Your task to perform on an android device: add a label to a message in the gmail app Image 0: 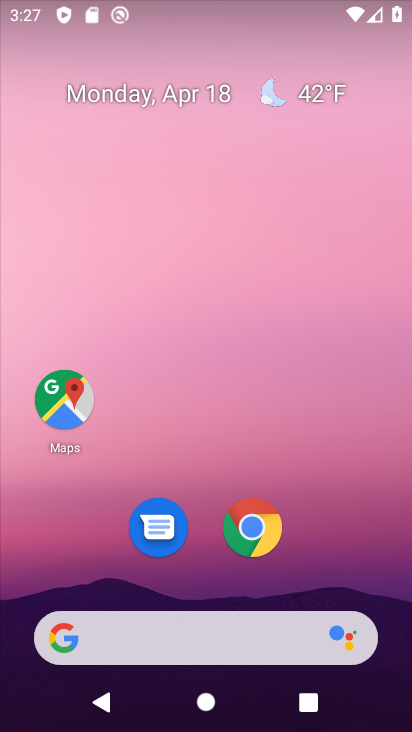
Step 0: drag from (389, 626) to (347, 93)
Your task to perform on an android device: add a label to a message in the gmail app Image 1: 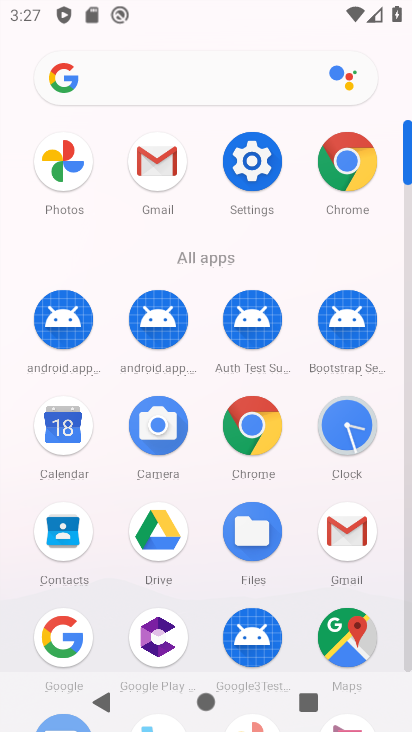
Step 1: click (406, 652)
Your task to perform on an android device: add a label to a message in the gmail app Image 2: 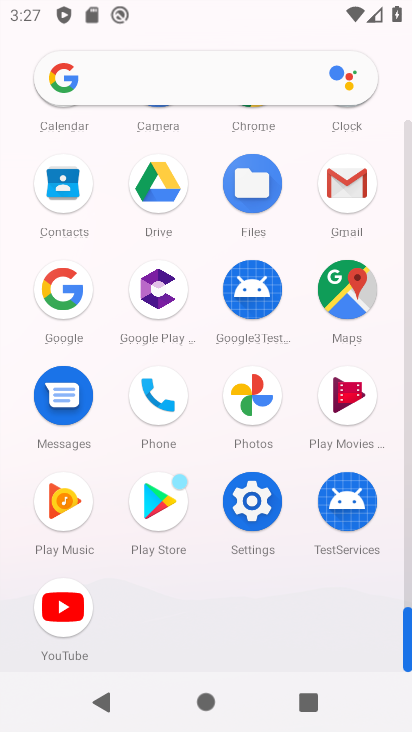
Step 2: click (346, 182)
Your task to perform on an android device: add a label to a message in the gmail app Image 3: 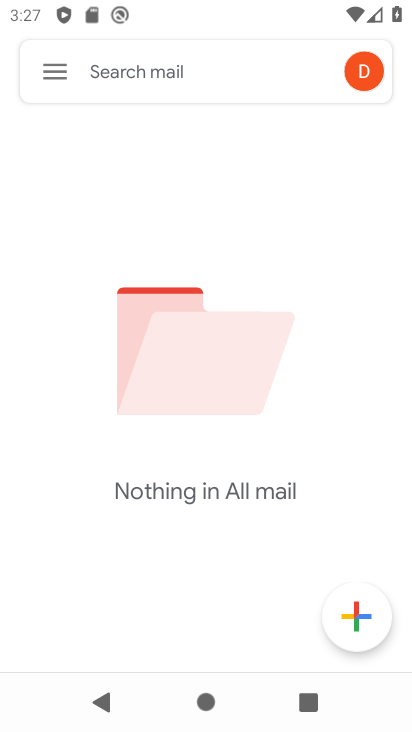
Step 3: click (49, 71)
Your task to perform on an android device: add a label to a message in the gmail app Image 4: 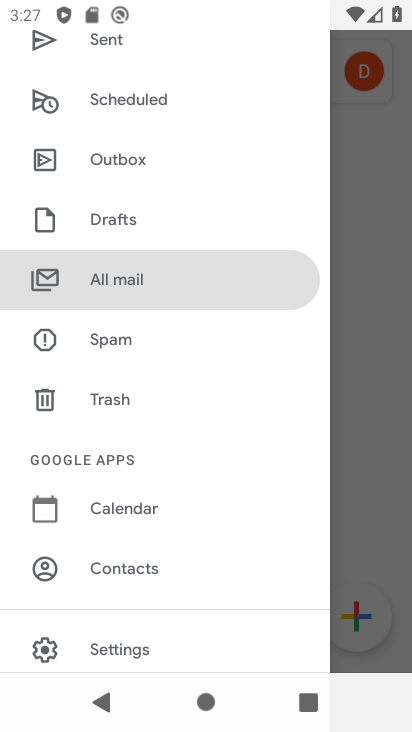
Step 4: click (138, 276)
Your task to perform on an android device: add a label to a message in the gmail app Image 5: 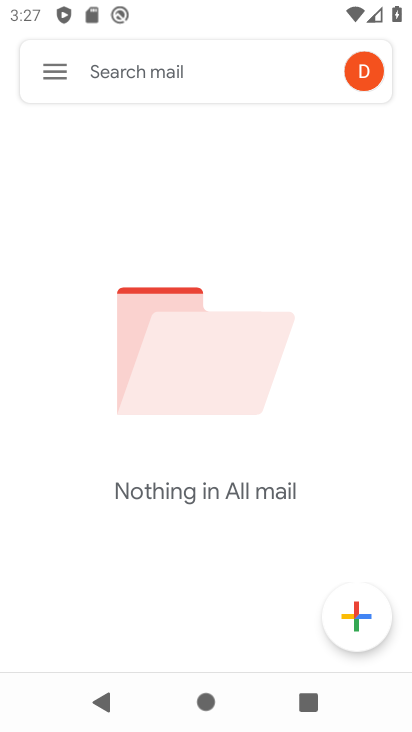
Step 5: task complete